Your task to perform on an android device: turn off picture-in-picture Image 0: 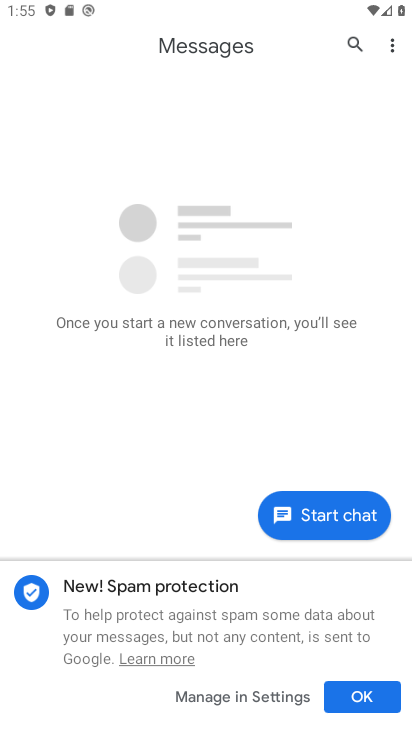
Step 0: press home button
Your task to perform on an android device: turn off picture-in-picture Image 1: 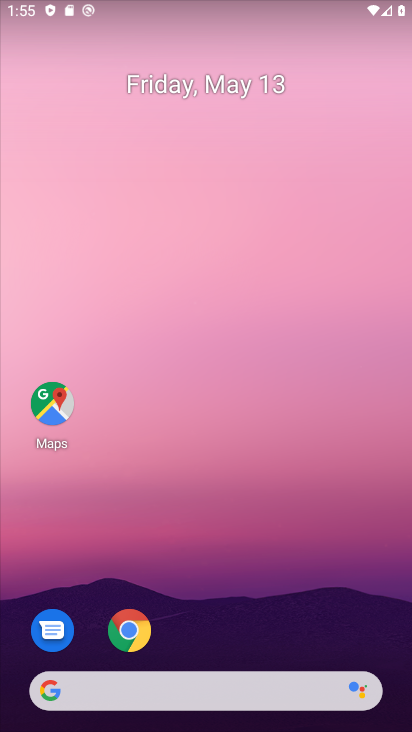
Step 1: drag from (229, 634) to (228, 305)
Your task to perform on an android device: turn off picture-in-picture Image 2: 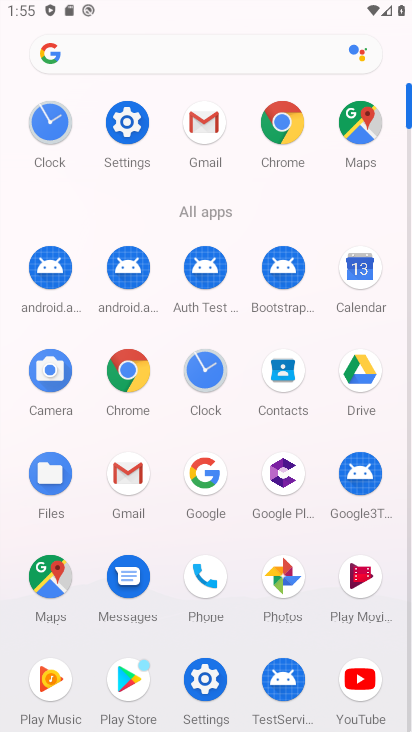
Step 2: click (136, 121)
Your task to perform on an android device: turn off picture-in-picture Image 3: 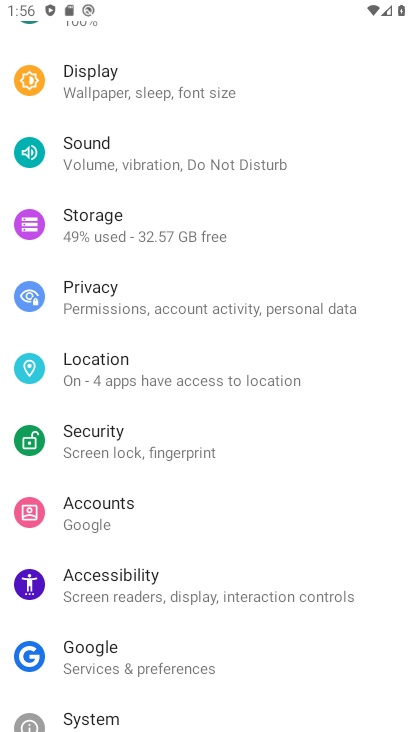
Step 3: drag from (211, 133) to (206, 268)
Your task to perform on an android device: turn off picture-in-picture Image 4: 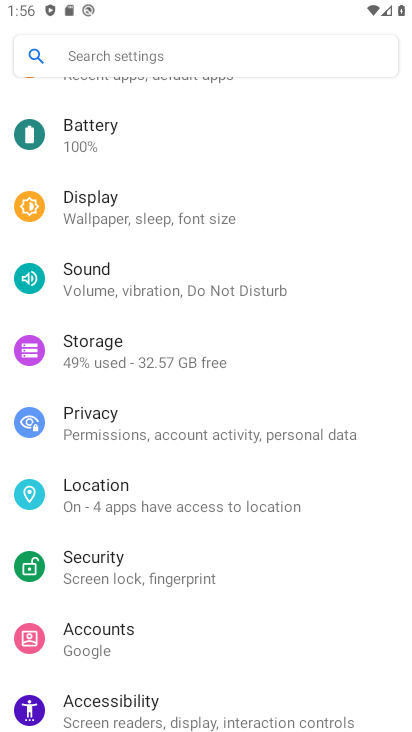
Step 4: drag from (245, 113) to (279, 316)
Your task to perform on an android device: turn off picture-in-picture Image 5: 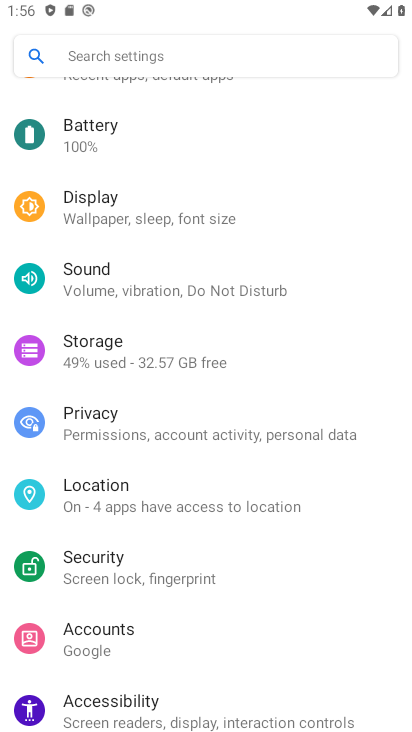
Step 5: drag from (230, 253) to (202, 501)
Your task to perform on an android device: turn off picture-in-picture Image 6: 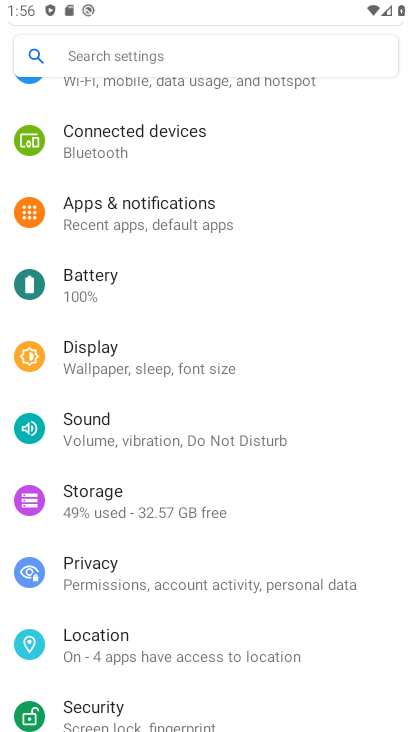
Step 6: click (169, 210)
Your task to perform on an android device: turn off picture-in-picture Image 7: 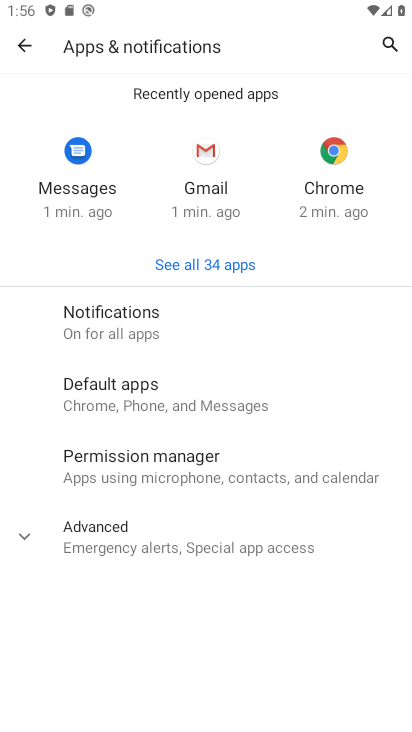
Step 7: click (158, 538)
Your task to perform on an android device: turn off picture-in-picture Image 8: 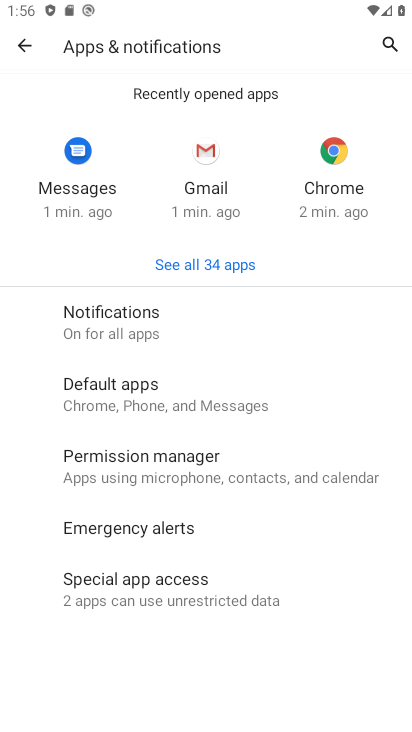
Step 8: click (158, 584)
Your task to perform on an android device: turn off picture-in-picture Image 9: 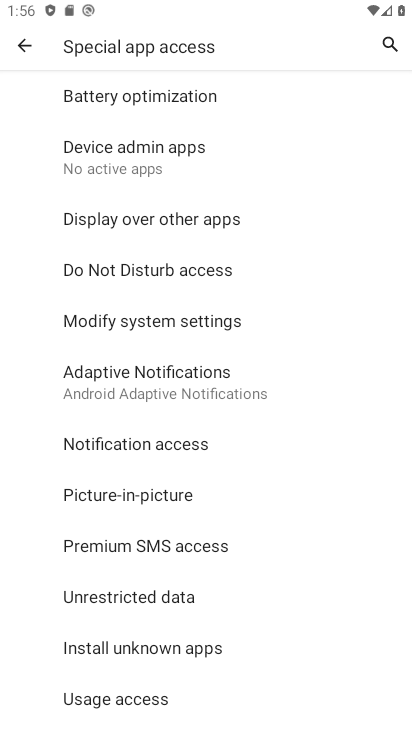
Step 9: click (133, 491)
Your task to perform on an android device: turn off picture-in-picture Image 10: 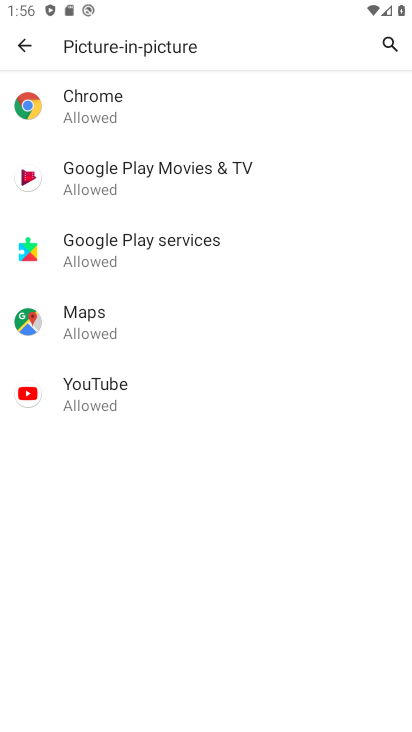
Step 10: click (93, 105)
Your task to perform on an android device: turn off picture-in-picture Image 11: 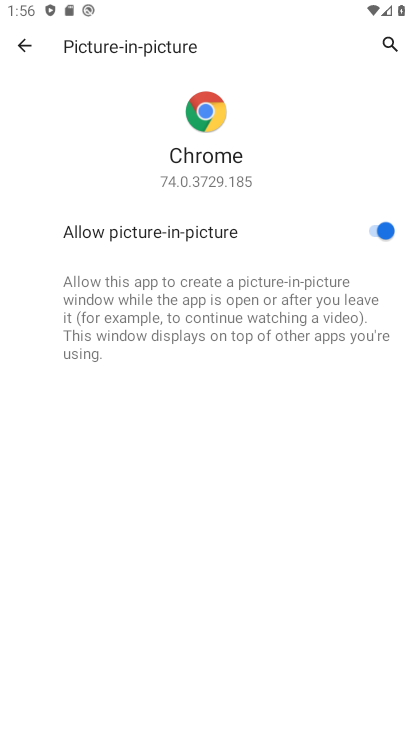
Step 11: click (372, 230)
Your task to perform on an android device: turn off picture-in-picture Image 12: 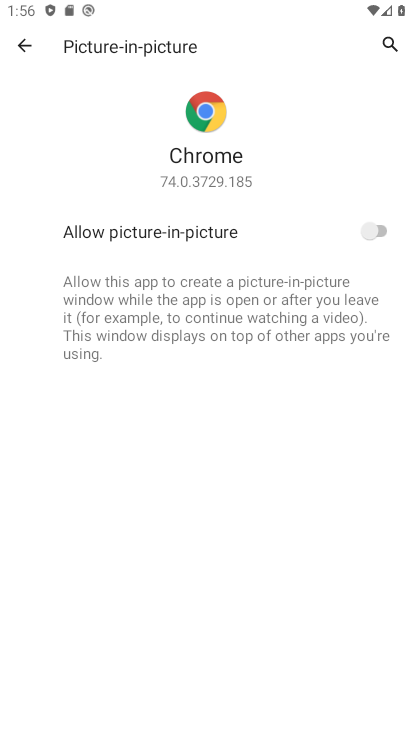
Step 12: click (25, 37)
Your task to perform on an android device: turn off picture-in-picture Image 13: 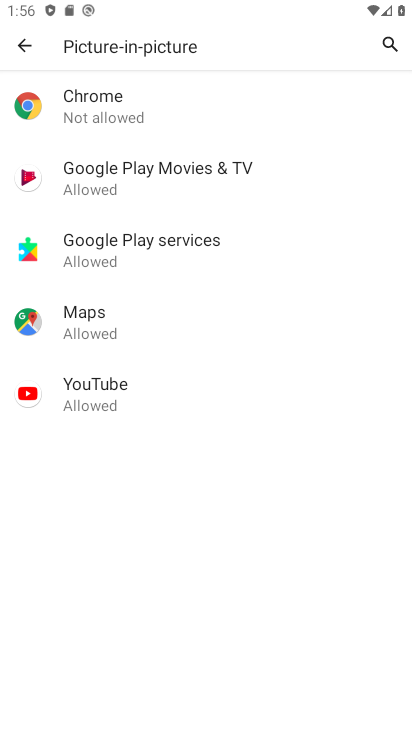
Step 13: click (123, 191)
Your task to perform on an android device: turn off picture-in-picture Image 14: 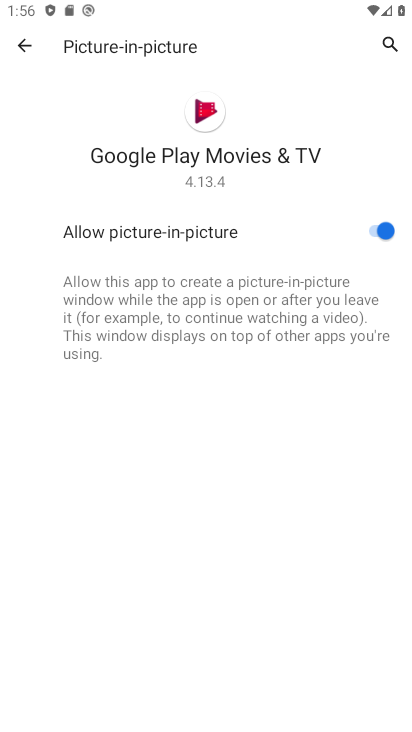
Step 14: click (377, 232)
Your task to perform on an android device: turn off picture-in-picture Image 15: 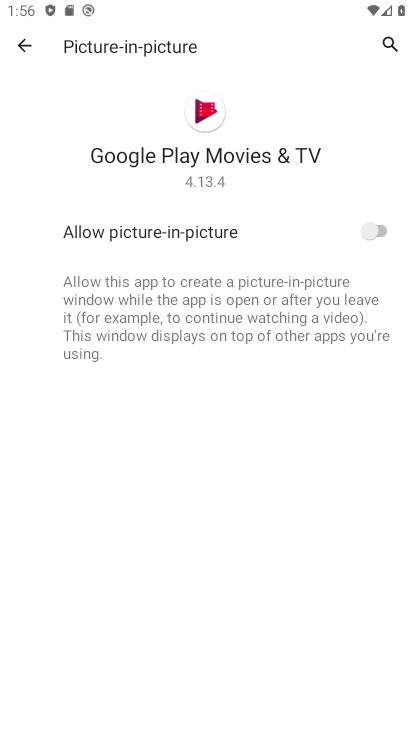
Step 15: click (24, 49)
Your task to perform on an android device: turn off picture-in-picture Image 16: 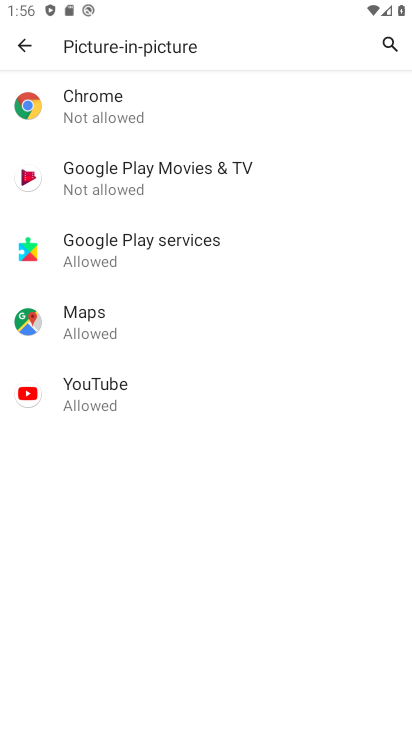
Step 16: click (127, 242)
Your task to perform on an android device: turn off picture-in-picture Image 17: 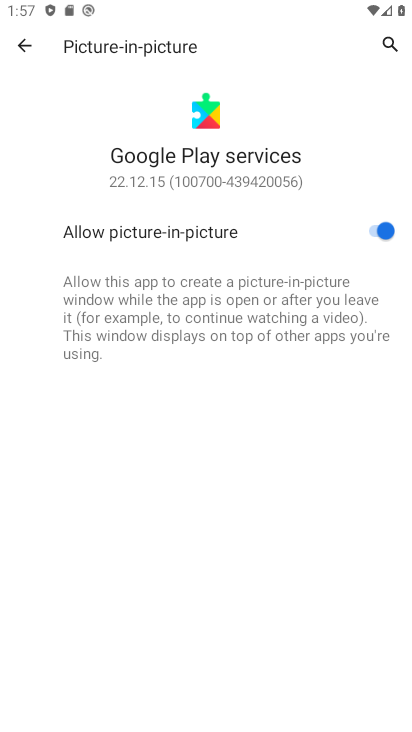
Step 17: click (371, 229)
Your task to perform on an android device: turn off picture-in-picture Image 18: 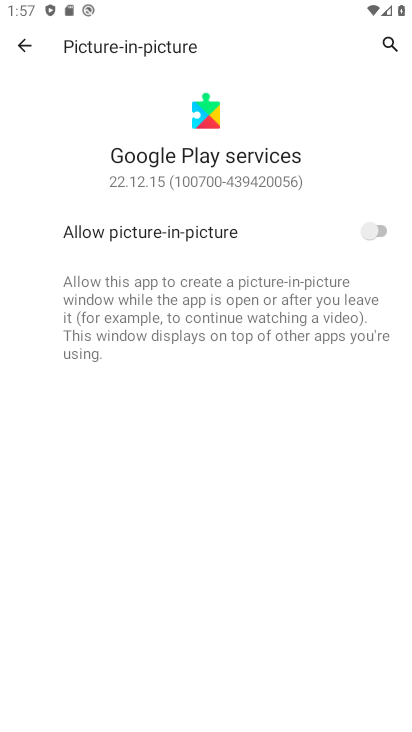
Step 18: click (22, 39)
Your task to perform on an android device: turn off picture-in-picture Image 19: 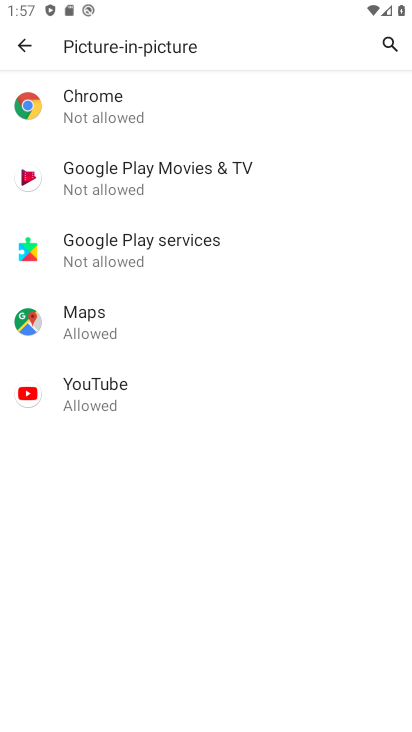
Step 19: click (99, 340)
Your task to perform on an android device: turn off picture-in-picture Image 20: 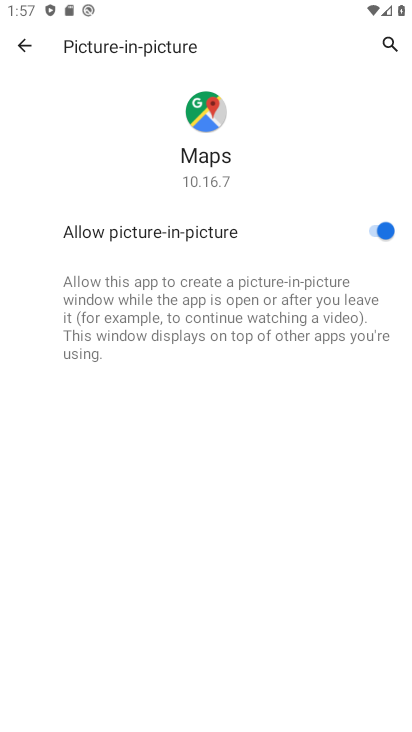
Step 20: click (380, 220)
Your task to perform on an android device: turn off picture-in-picture Image 21: 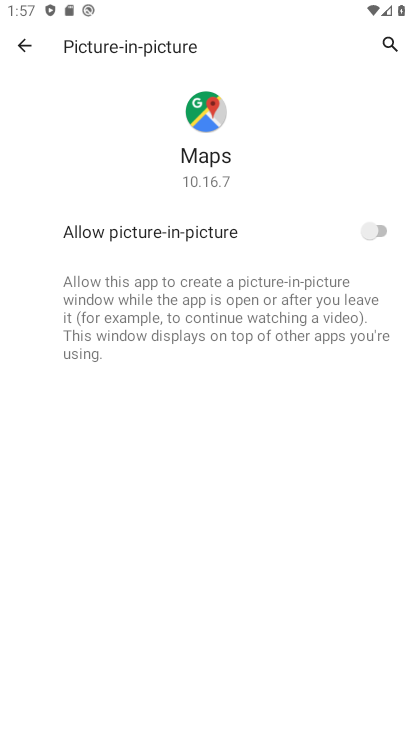
Step 21: click (27, 42)
Your task to perform on an android device: turn off picture-in-picture Image 22: 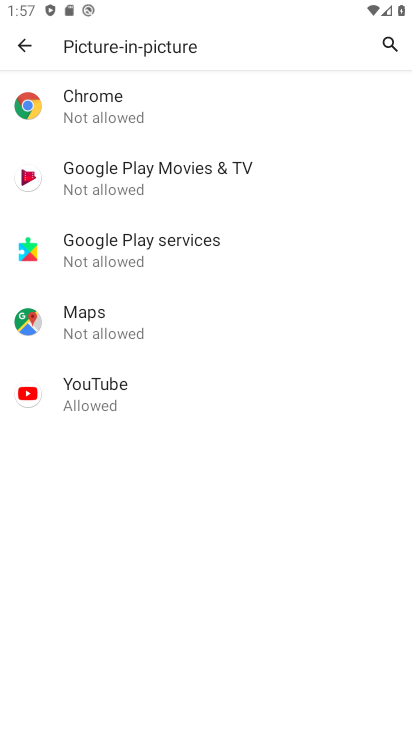
Step 22: click (92, 395)
Your task to perform on an android device: turn off picture-in-picture Image 23: 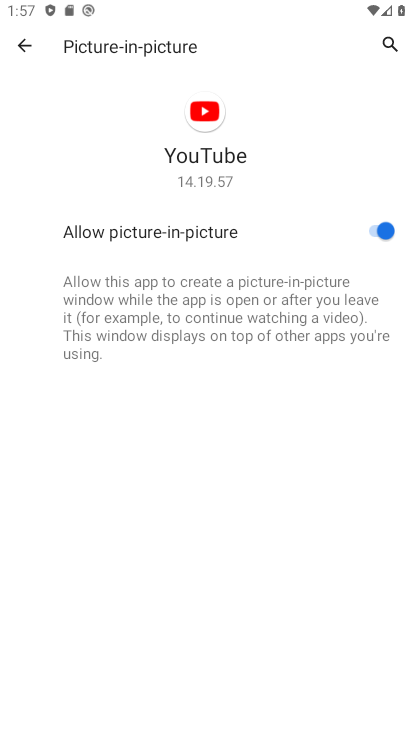
Step 23: click (375, 230)
Your task to perform on an android device: turn off picture-in-picture Image 24: 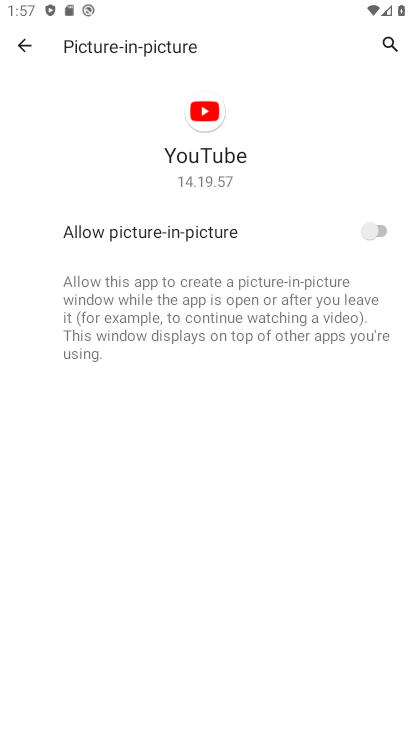
Step 24: task complete